Your task to perform on an android device: open the mobile data screen to see how much data has been used Image 0: 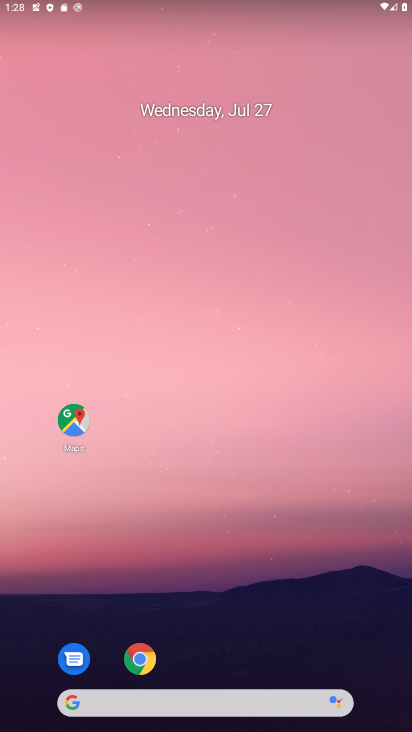
Step 0: drag from (337, 596) to (228, 30)
Your task to perform on an android device: open the mobile data screen to see how much data has been used Image 1: 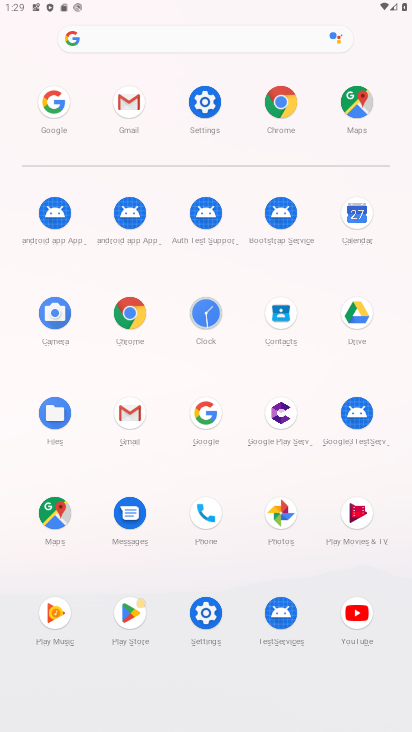
Step 1: click (194, 104)
Your task to perform on an android device: open the mobile data screen to see how much data has been used Image 2: 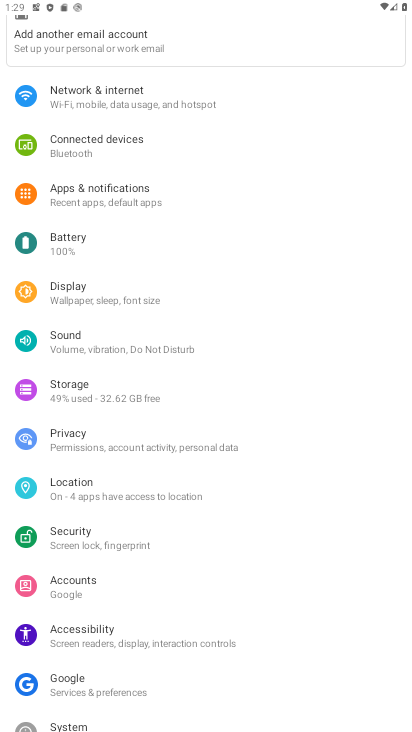
Step 2: click (120, 103)
Your task to perform on an android device: open the mobile data screen to see how much data has been used Image 3: 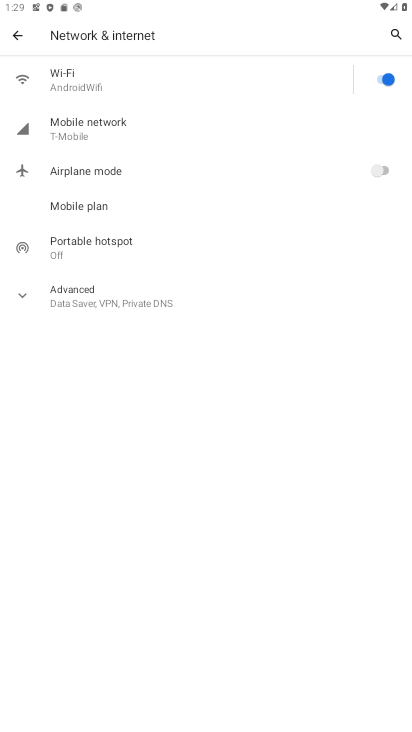
Step 3: click (113, 129)
Your task to perform on an android device: open the mobile data screen to see how much data has been used Image 4: 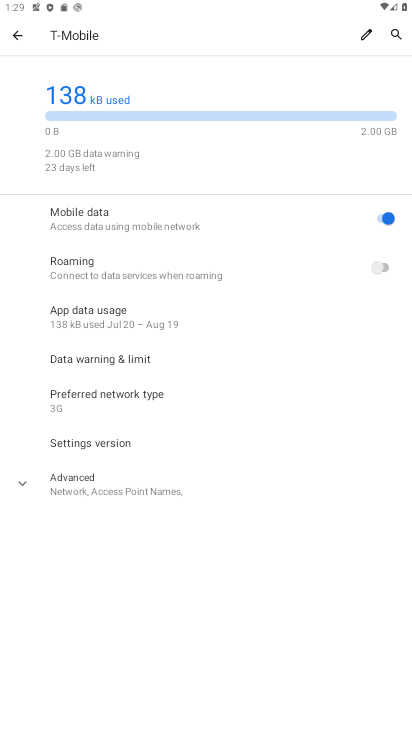
Step 4: task complete